Your task to perform on an android device: Open the web browser Image 0: 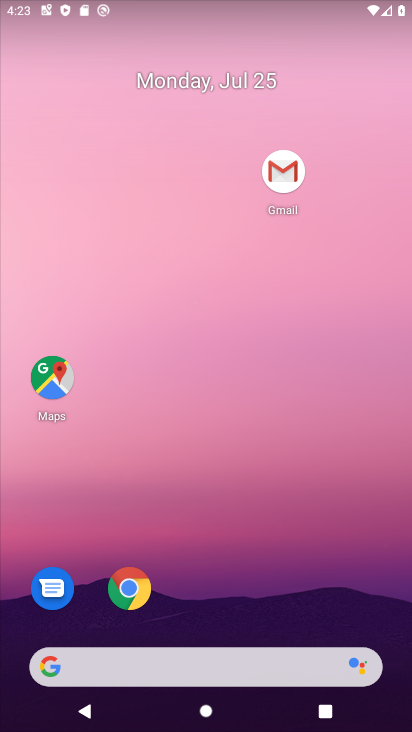
Step 0: drag from (313, 584) to (329, 110)
Your task to perform on an android device: Open the web browser Image 1: 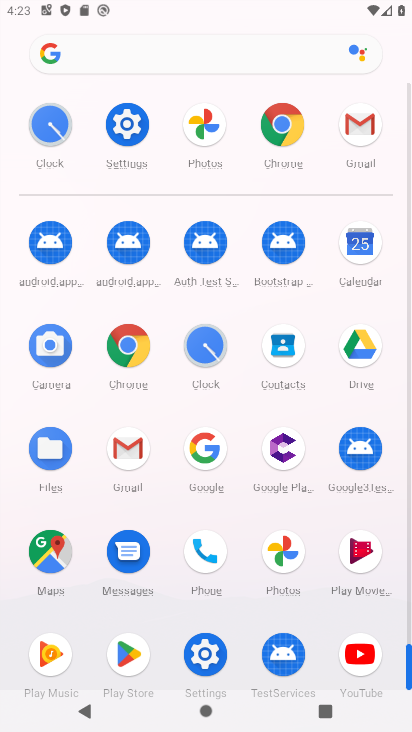
Step 1: click (287, 124)
Your task to perform on an android device: Open the web browser Image 2: 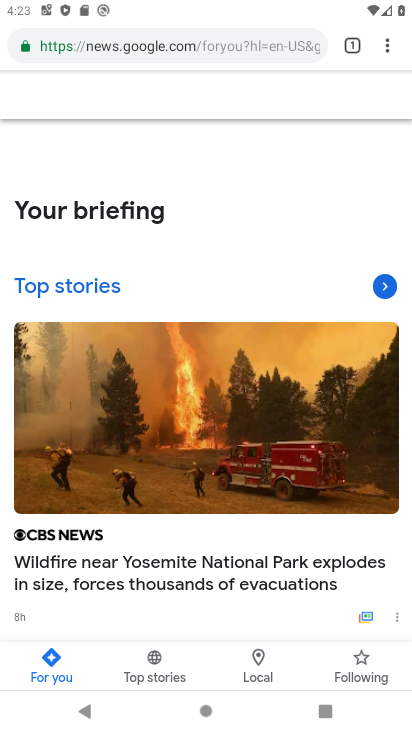
Step 2: task complete